Your task to perform on an android device: Open Youtube and go to "Your channel" Image 0: 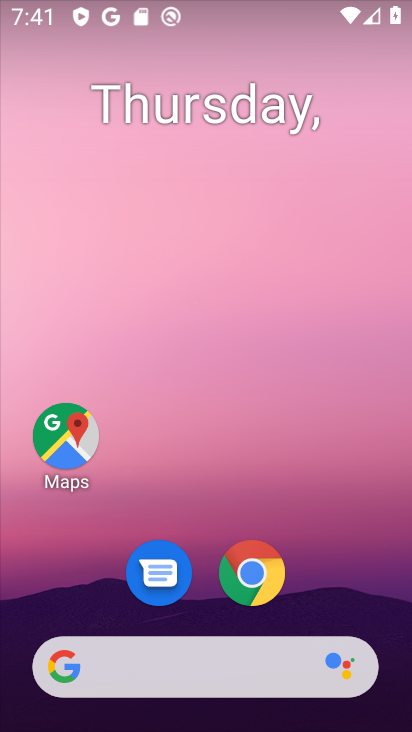
Step 0: drag from (355, 561) to (302, 181)
Your task to perform on an android device: Open Youtube and go to "Your channel" Image 1: 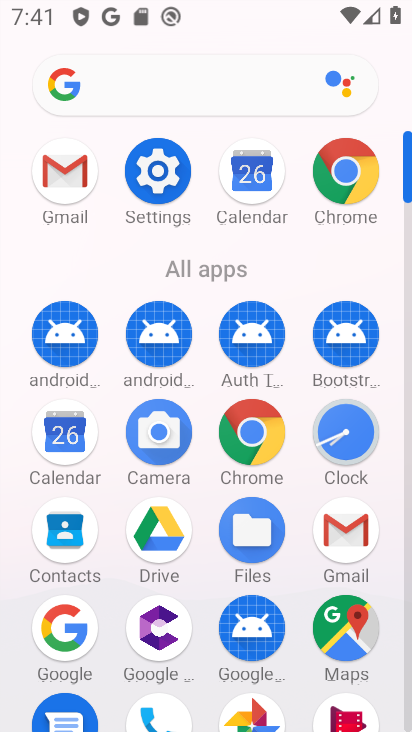
Step 1: drag from (221, 657) to (196, 294)
Your task to perform on an android device: Open Youtube and go to "Your channel" Image 2: 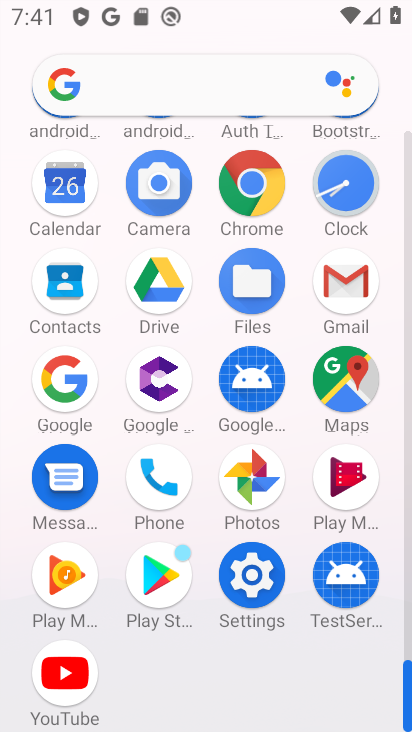
Step 2: click (72, 670)
Your task to perform on an android device: Open Youtube and go to "Your channel" Image 3: 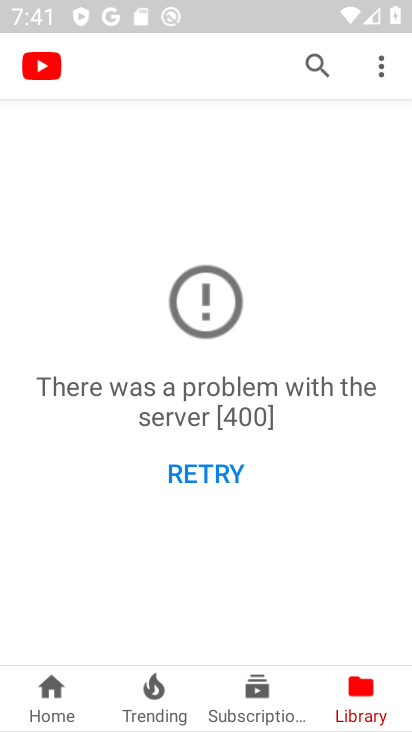
Step 3: click (388, 66)
Your task to perform on an android device: Open Youtube and go to "Your channel" Image 4: 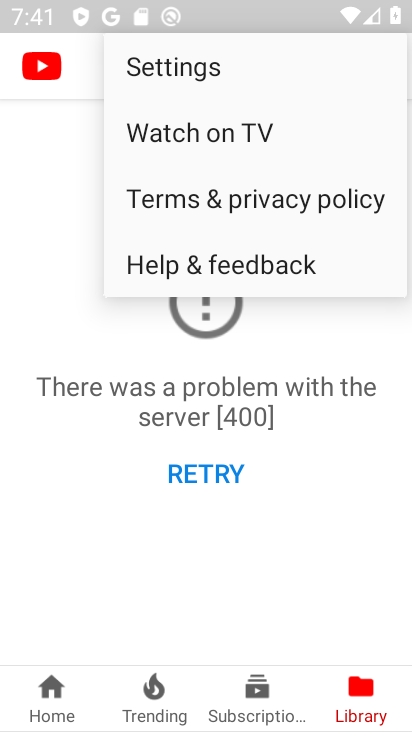
Step 4: task complete